Your task to perform on an android device: Open the map Image 0: 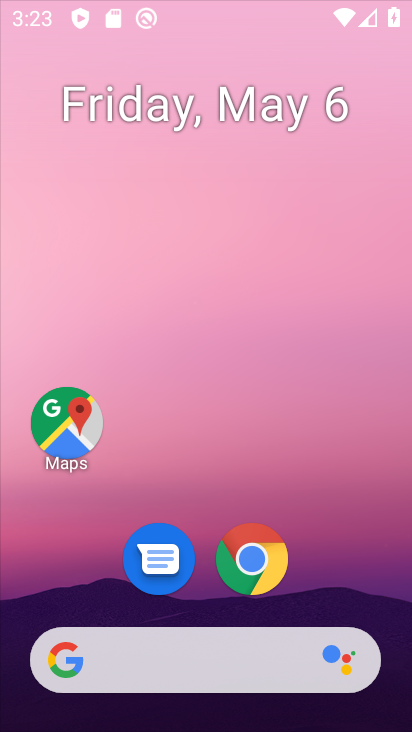
Step 0: press home button
Your task to perform on an android device: Open the map Image 1: 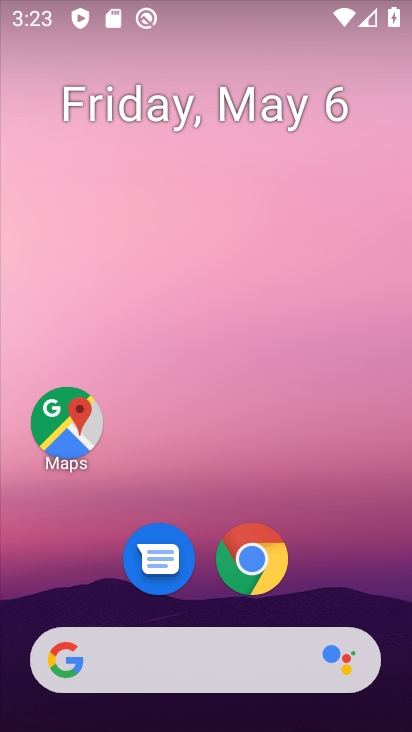
Step 1: drag from (199, 615) to (229, 78)
Your task to perform on an android device: Open the map Image 2: 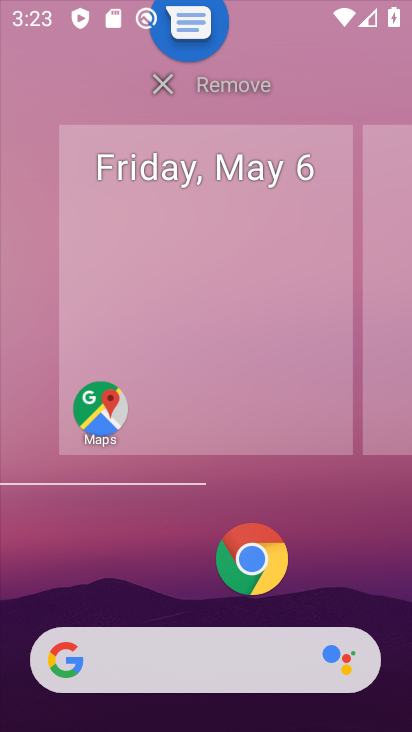
Step 2: click (163, 565)
Your task to perform on an android device: Open the map Image 3: 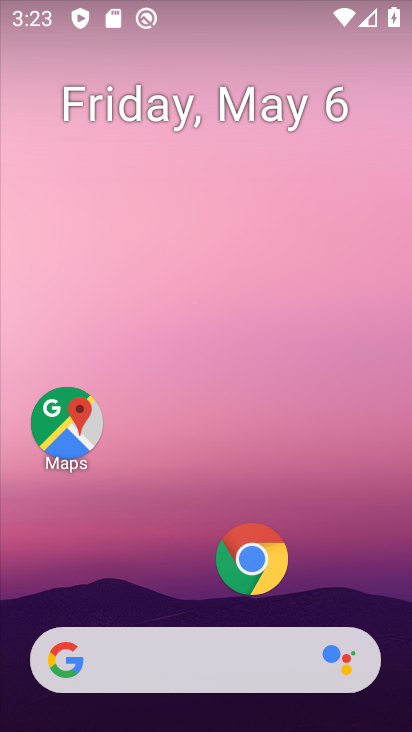
Step 3: drag from (185, 620) to (180, 9)
Your task to perform on an android device: Open the map Image 4: 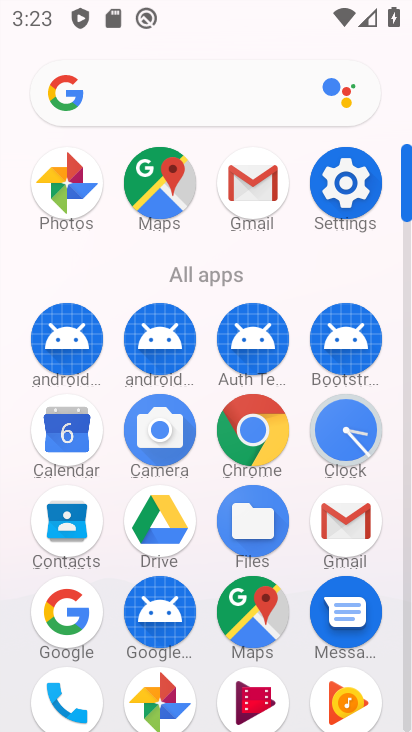
Step 4: click (270, 613)
Your task to perform on an android device: Open the map Image 5: 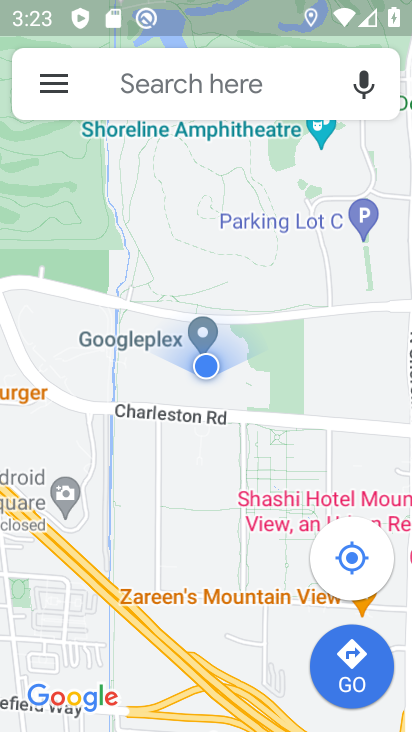
Step 5: task complete